Your task to perform on an android device: Open Google Image 0: 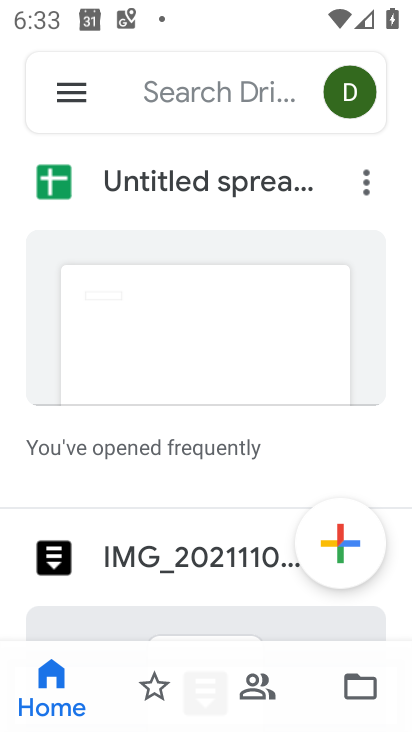
Step 0: press home button
Your task to perform on an android device: Open Google Image 1: 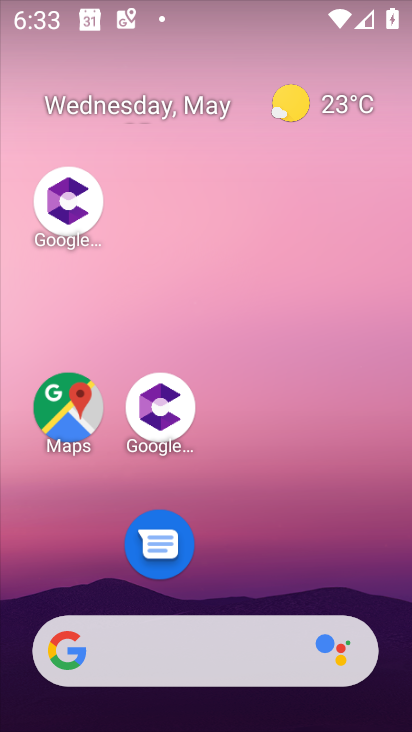
Step 1: drag from (295, 485) to (167, 7)
Your task to perform on an android device: Open Google Image 2: 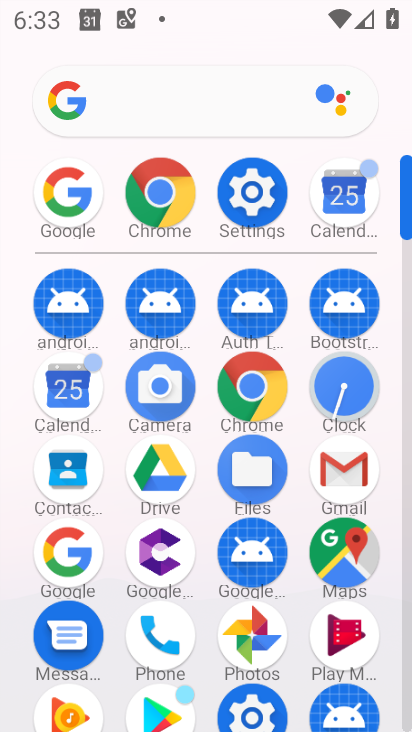
Step 2: click (53, 199)
Your task to perform on an android device: Open Google Image 3: 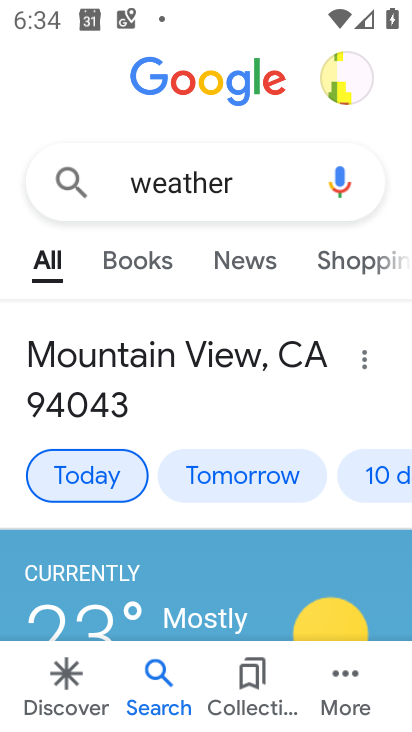
Step 3: task complete